Your task to perform on an android device: Find coffee shops on Maps Image 0: 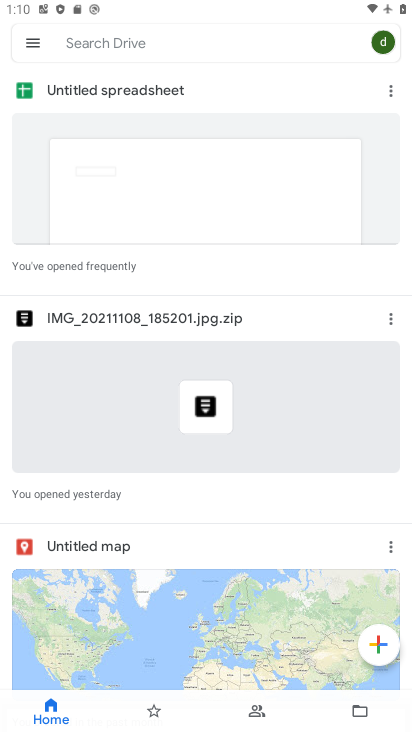
Step 0: press home button
Your task to perform on an android device: Find coffee shops on Maps Image 1: 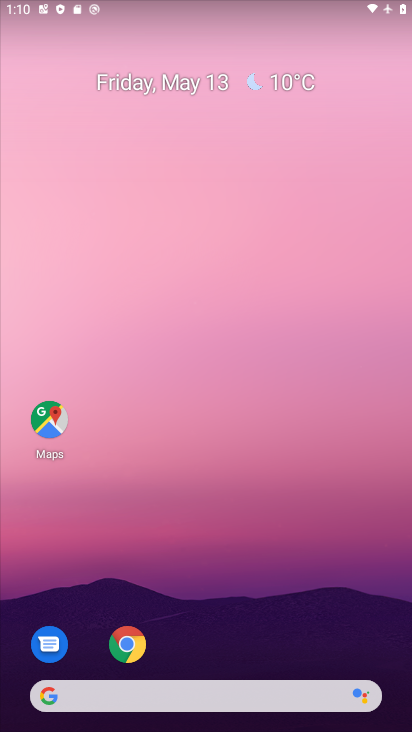
Step 1: drag from (233, 729) to (232, 139)
Your task to perform on an android device: Find coffee shops on Maps Image 2: 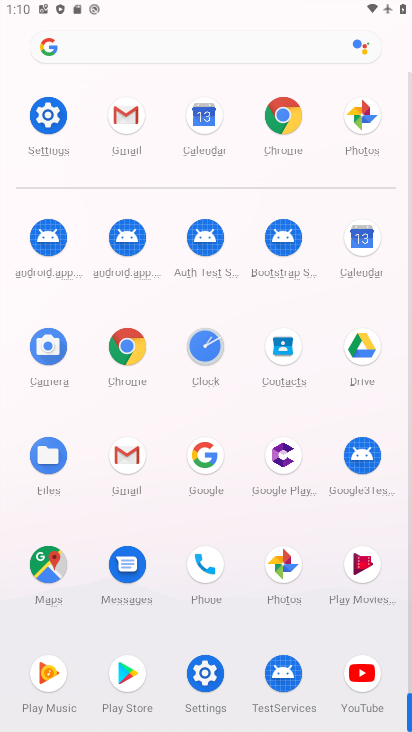
Step 2: click (47, 563)
Your task to perform on an android device: Find coffee shops on Maps Image 3: 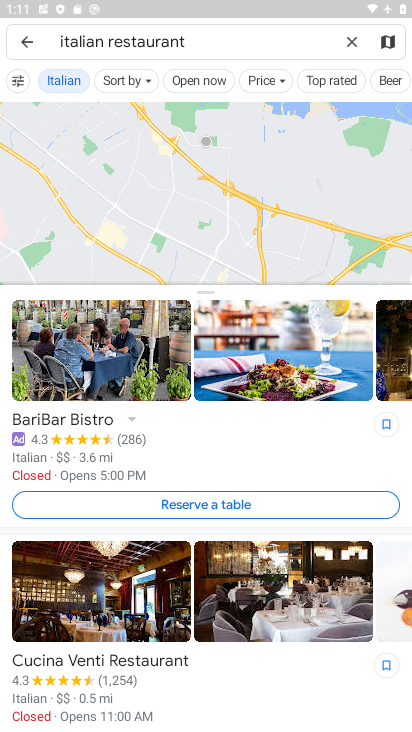
Step 3: click (218, 41)
Your task to perform on an android device: Find coffee shops on Maps Image 4: 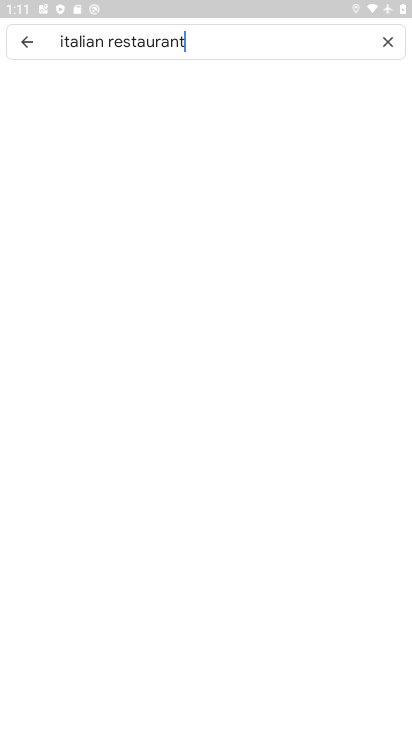
Step 4: click (388, 41)
Your task to perform on an android device: Find coffee shops on Maps Image 5: 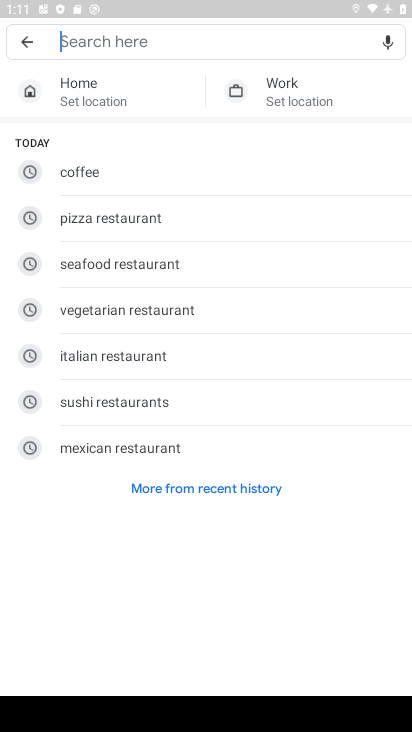
Step 5: type "coffee shops"
Your task to perform on an android device: Find coffee shops on Maps Image 6: 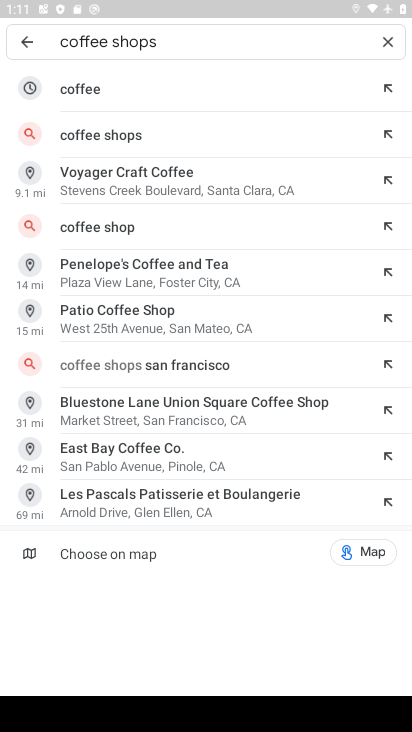
Step 6: click (121, 130)
Your task to perform on an android device: Find coffee shops on Maps Image 7: 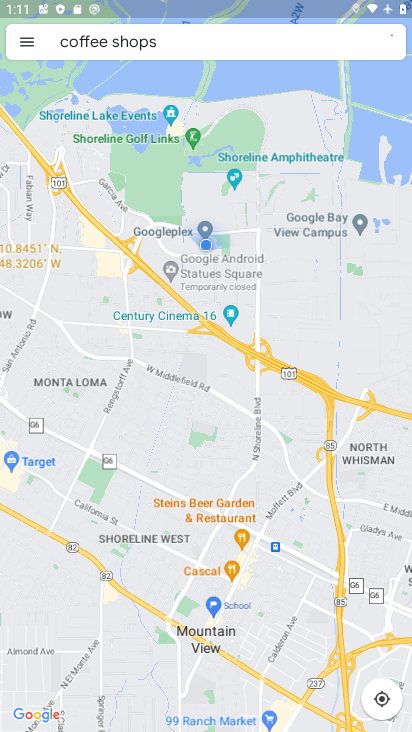
Step 7: task complete